Your task to perform on an android device: Go to privacy settings Image 0: 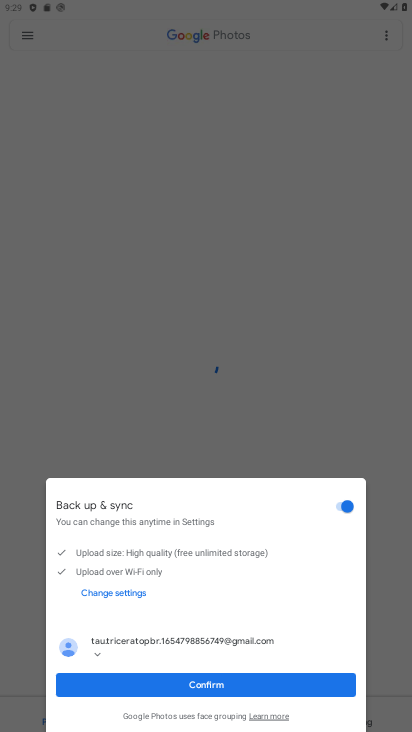
Step 0: press home button
Your task to perform on an android device: Go to privacy settings Image 1: 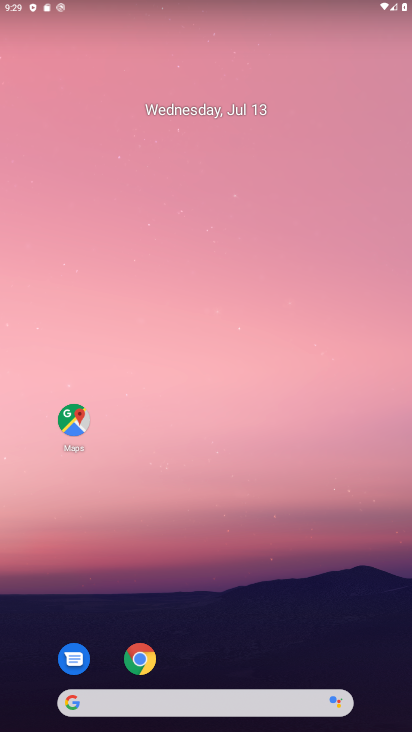
Step 1: drag from (258, 498) to (186, 133)
Your task to perform on an android device: Go to privacy settings Image 2: 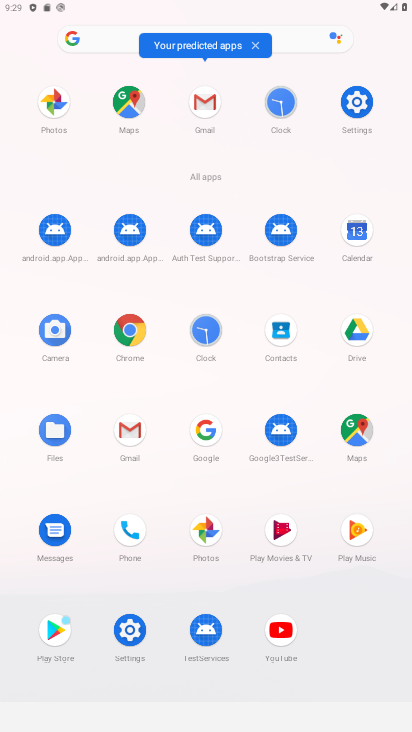
Step 2: click (356, 110)
Your task to perform on an android device: Go to privacy settings Image 3: 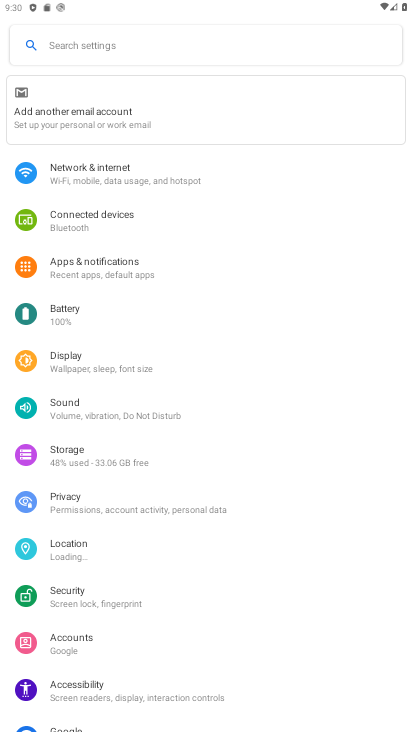
Step 3: click (95, 516)
Your task to perform on an android device: Go to privacy settings Image 4: 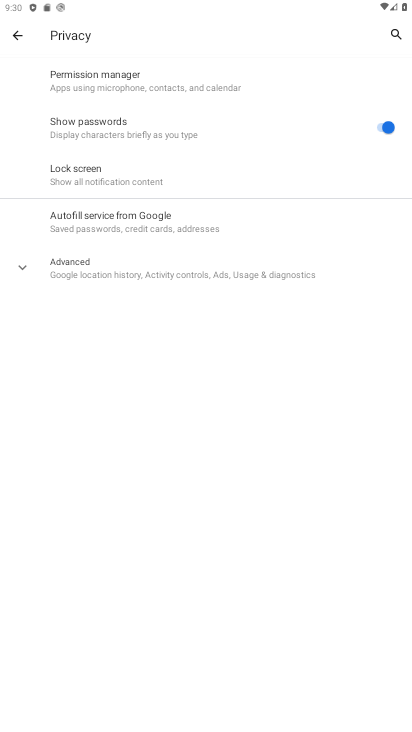
Step 4: click (238, 282)
Your task to perform on an android device: Go to privacy settings Image 5: 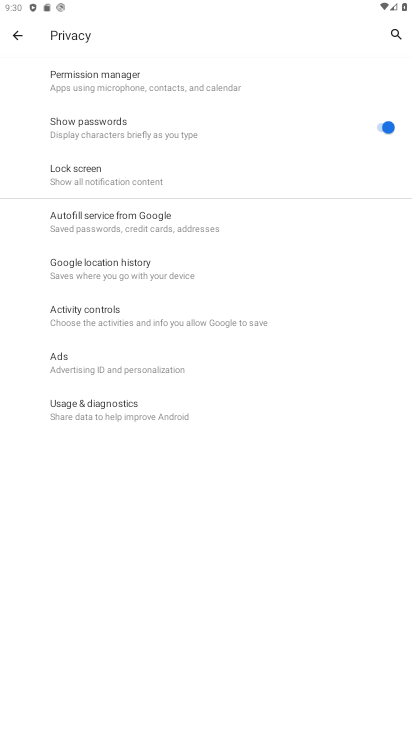
Step 5: task complete